Your task to perform on an android device: Search for sushi restaurants on Maps Image 0: 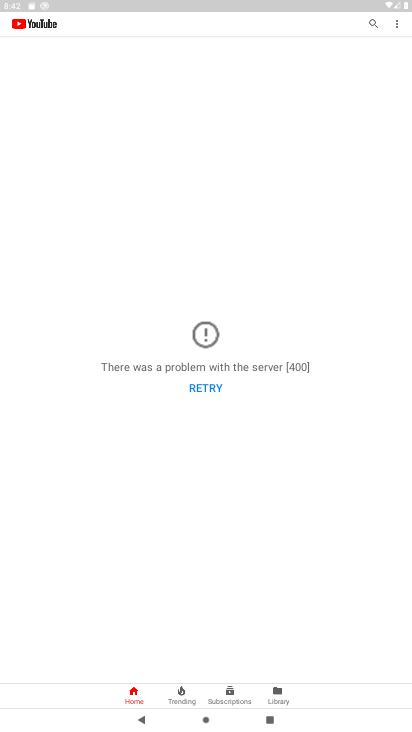
Step 0: press home button
Your task to perform on an android device: Search for sushi restaurants on Maps Image 1: 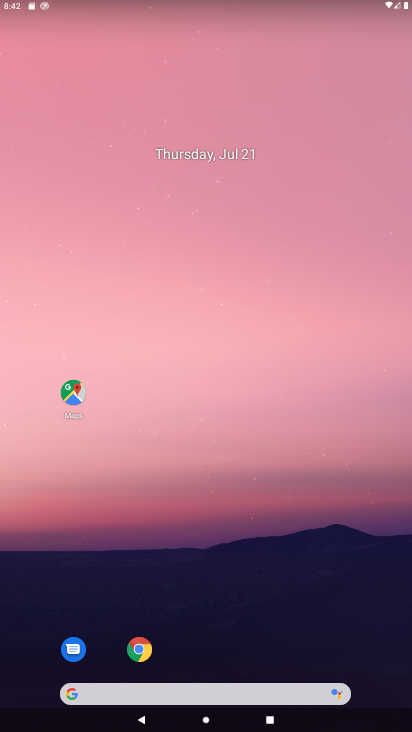
Step 1: click (73, 399)
Your task to perform on an android device: Search for sushi restaurants on Maps Image 2: 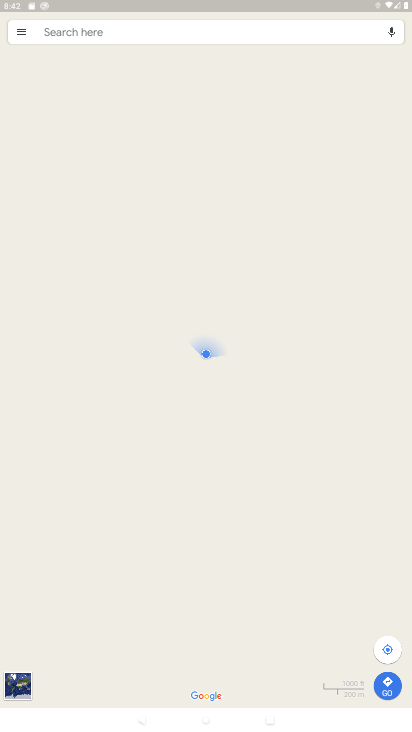
Step 2: click (175, 33)
Your task to perform on an android device: Search for sushi restaurants on Maps Image 3: 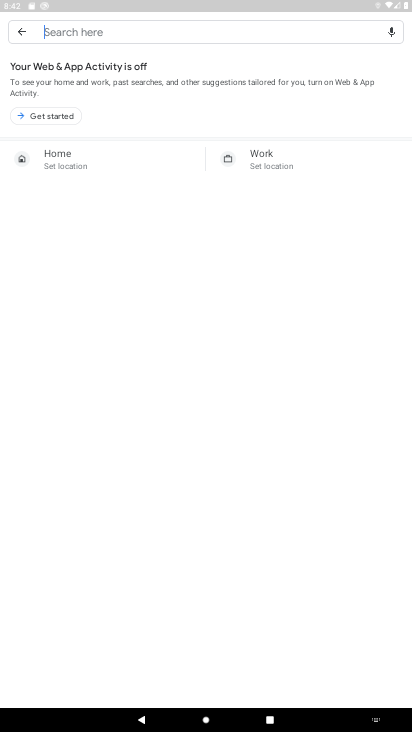
Step 3: click (57, 112)
Your task to perform on an android device: Search for sushi restaurants on Maps Image 4: 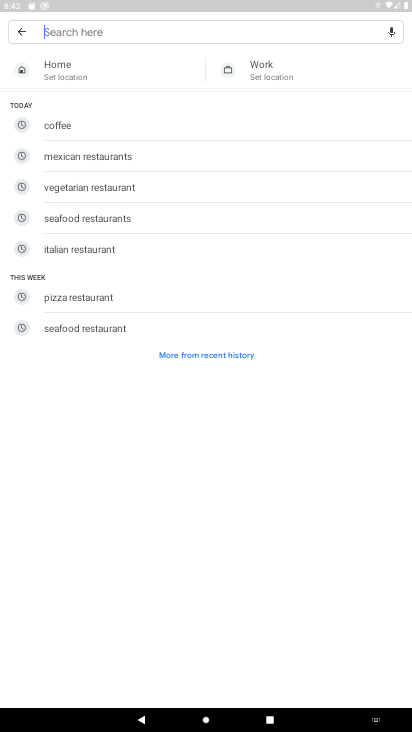
Step 4: click (246, 356)
Your task to perform on an android device: Search for sushi restaurants on Maps Image 5: 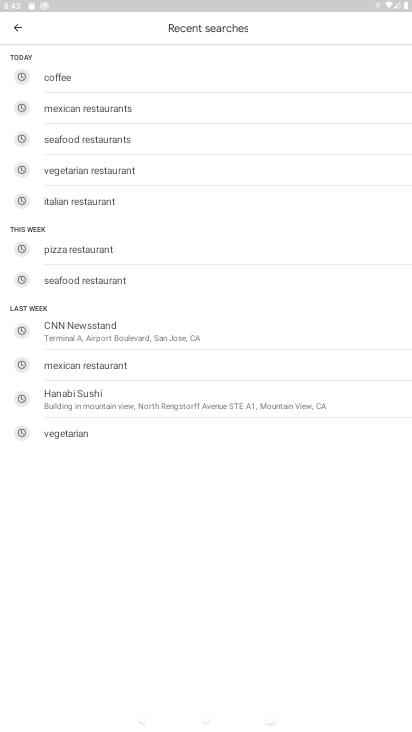
Step 5: press back button
Your task to perform on an android device: Search for sushi restaurants on Maps Image 6: 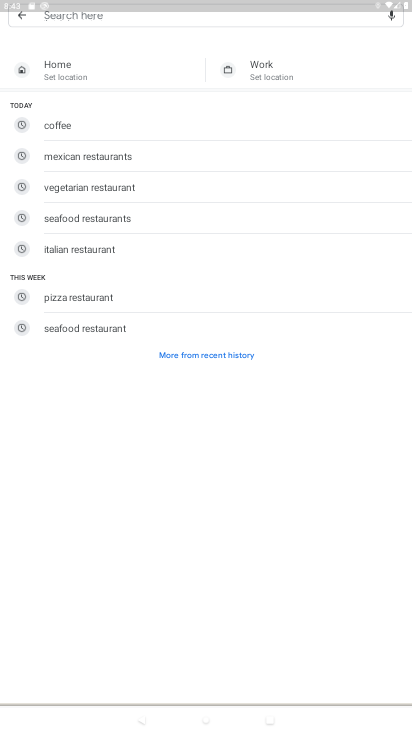
Step 6: drag from (149, 109) to (158, 272)
Your task to perform on an android device: Search for sushi restaurants on Maps Image 7: 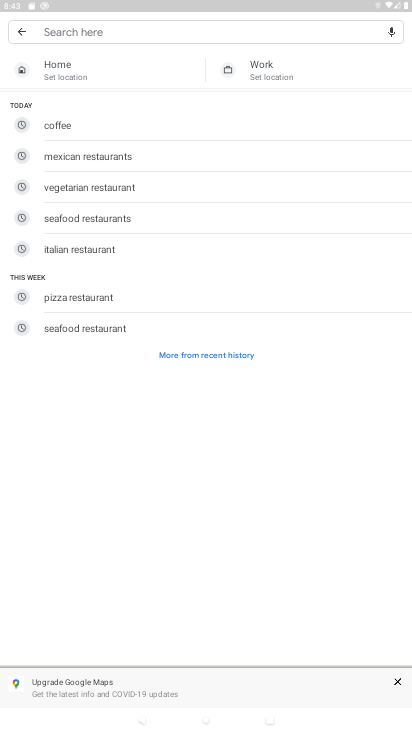
Step 7: click (130, 36)
Your task to perform on an android device: Search for sushi restaurants on Maps Image 8: 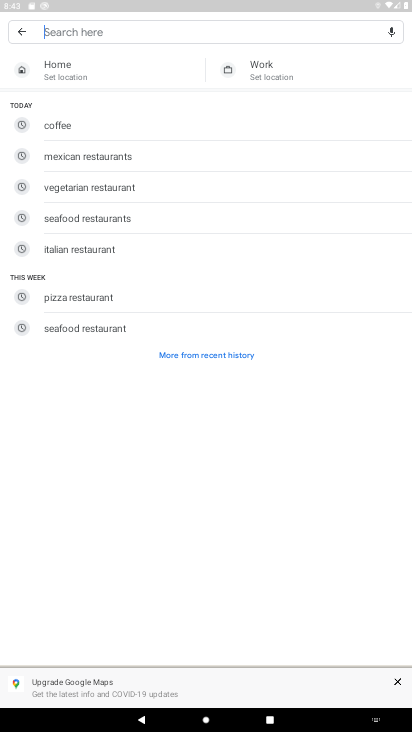
Step 8: type "sushi restaurants"
Your task to perform on an android device: Search for sushi restaurants on Maps Image 9: 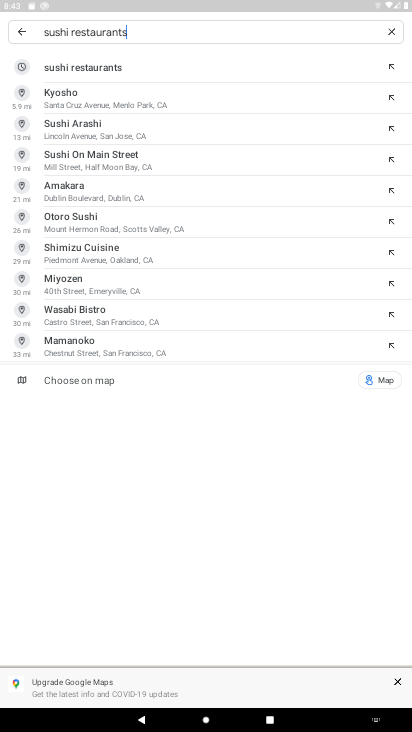
Step 9: click (107, 74)
Your task to perform on an android device: Search for sushi restaurants on Maps Image 10: 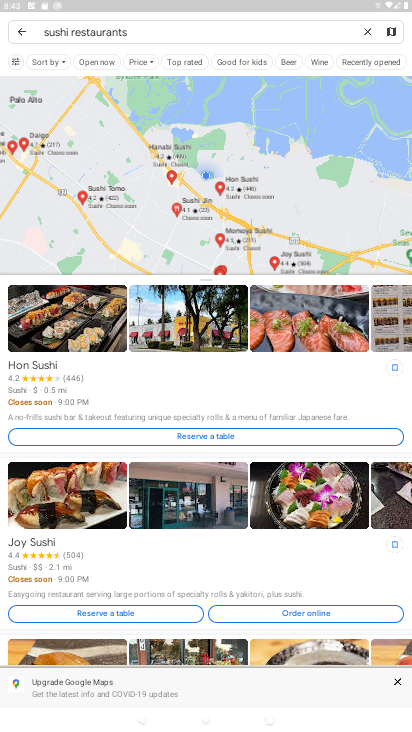
Step 10: task complete